Your task to perform on an android device: Open Google Chrome and click the shortcut for Amazon.com Image 0: 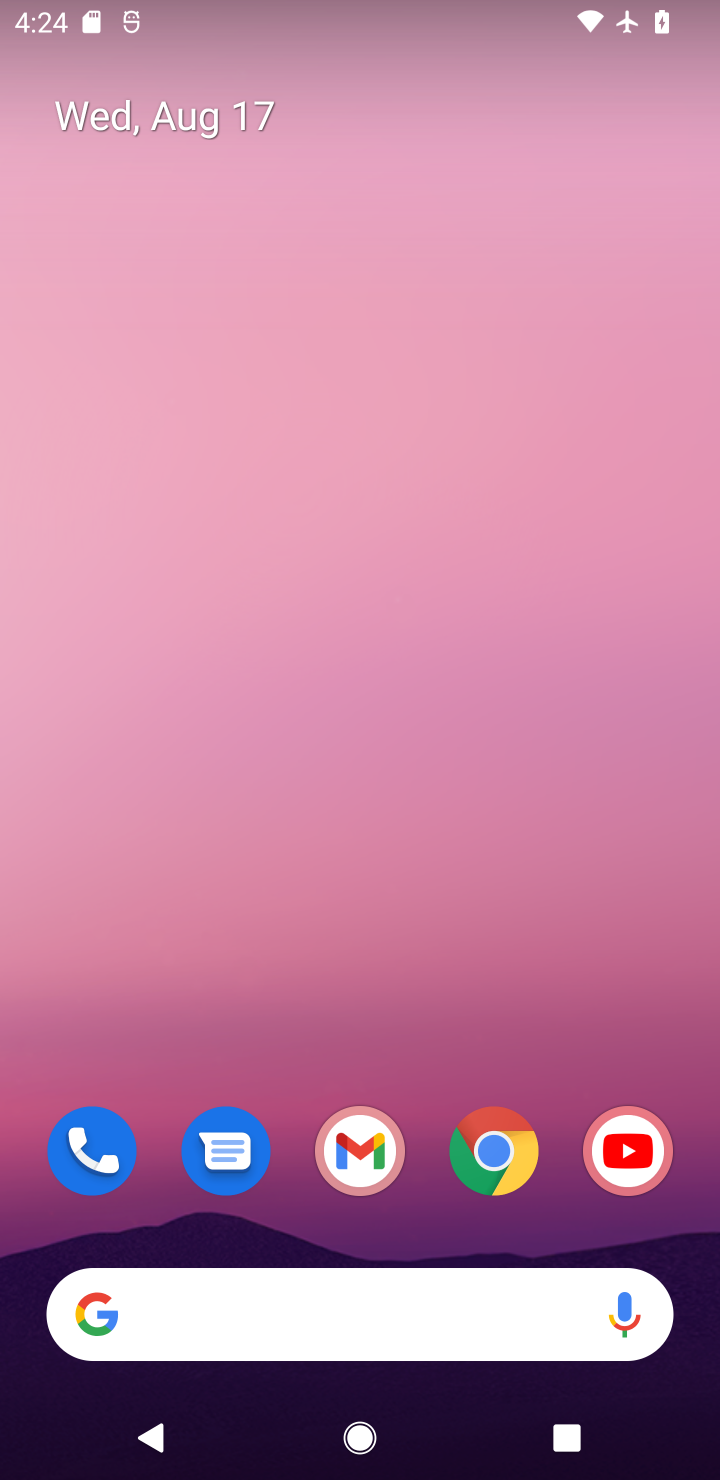
Step 0: drag from (366, 1101) to (271, 507)
Your task to perform on an android device: Open Google Chrome and click the shortcut for Amazon.com Image 1: 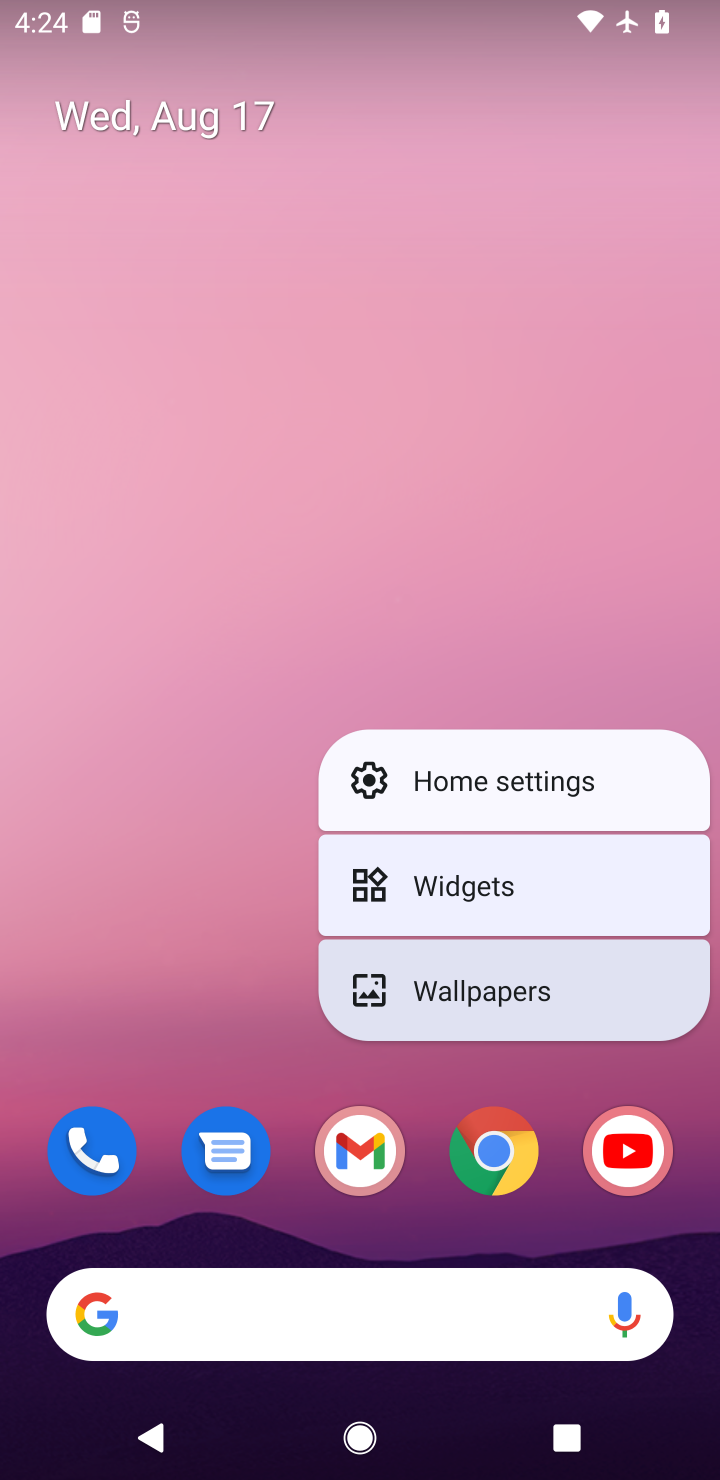
Step 1: click (155, 832)
Your task to perform on an android device: Open Google Chrome and click the shortcut for Amazon.com Image 2: 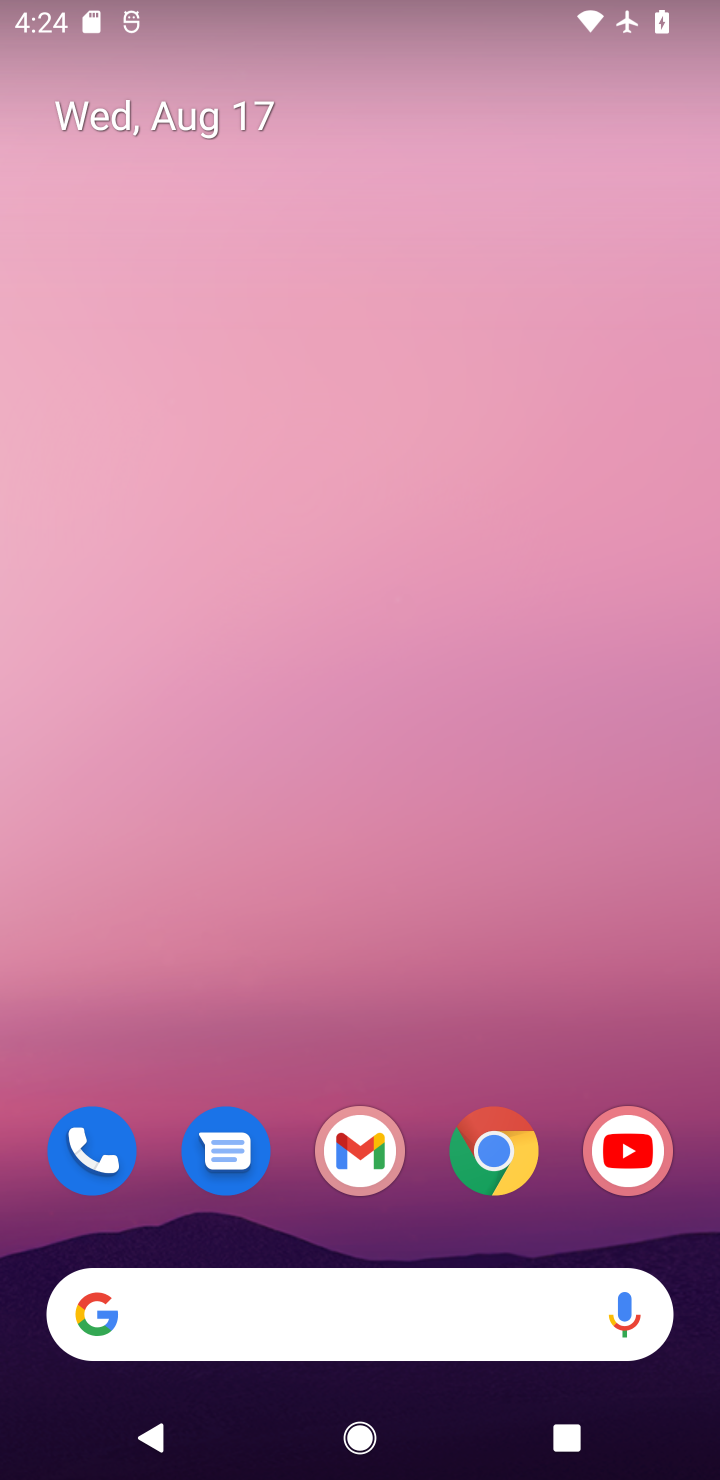
Step 2: drag from (324, 1233) to (312, 493)
Your task to perform on an android device: Open Google Chrome and click the shortcut for Amazon.com Image 3: 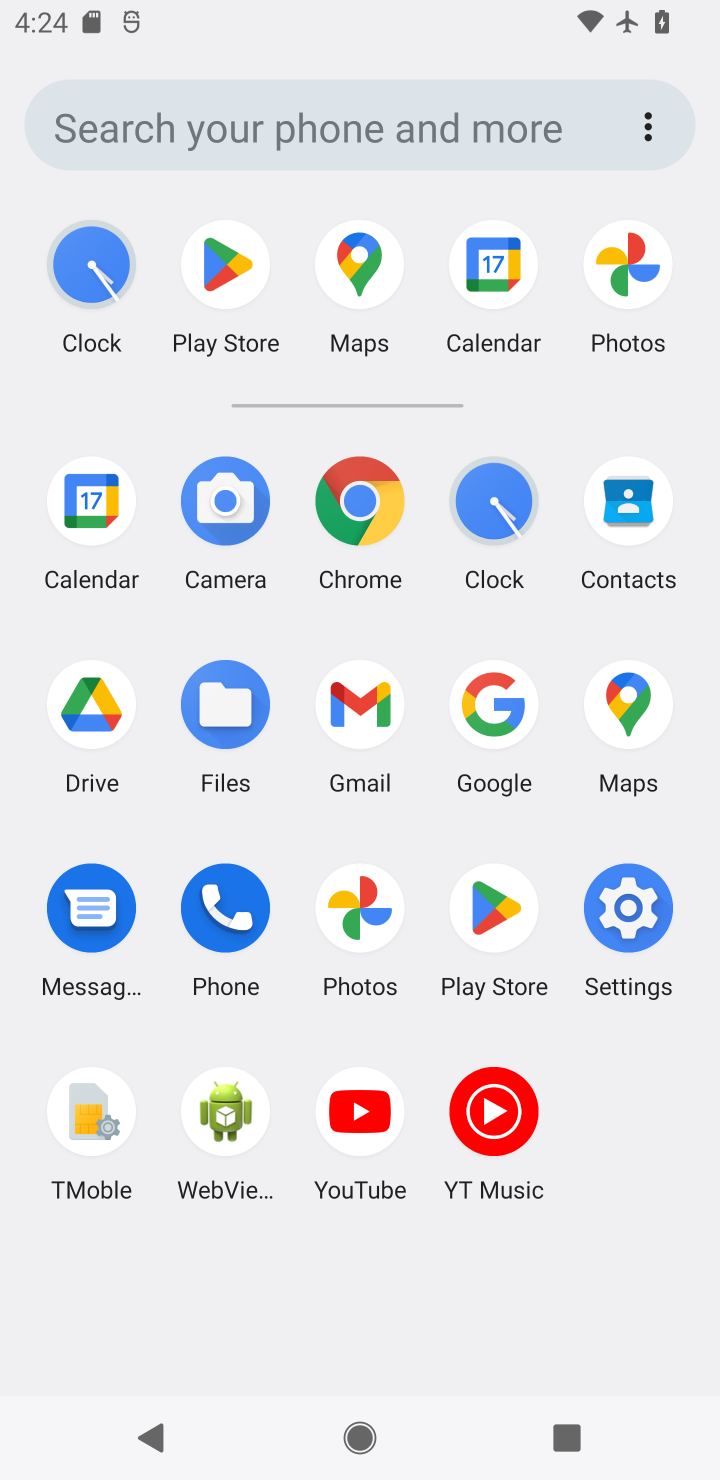
Step 3: click (376, 502)
Your task to perform on an android device: Open Google Chrome and click the shortcut for Amazon.com Image 4: 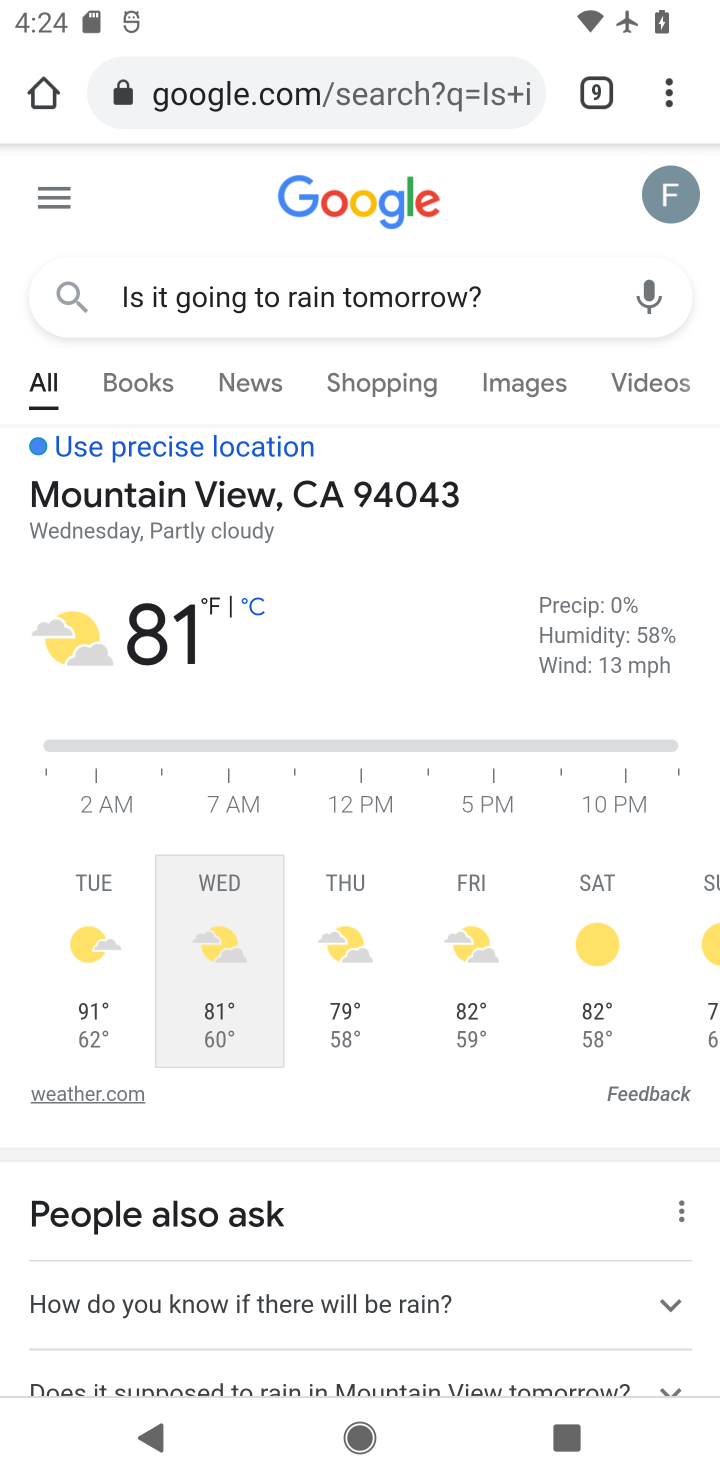
Step 4: click (670, 85)
Your task to perform on an android device: Open Google Chrome and click the shortcut for Amazon.com Image 5: 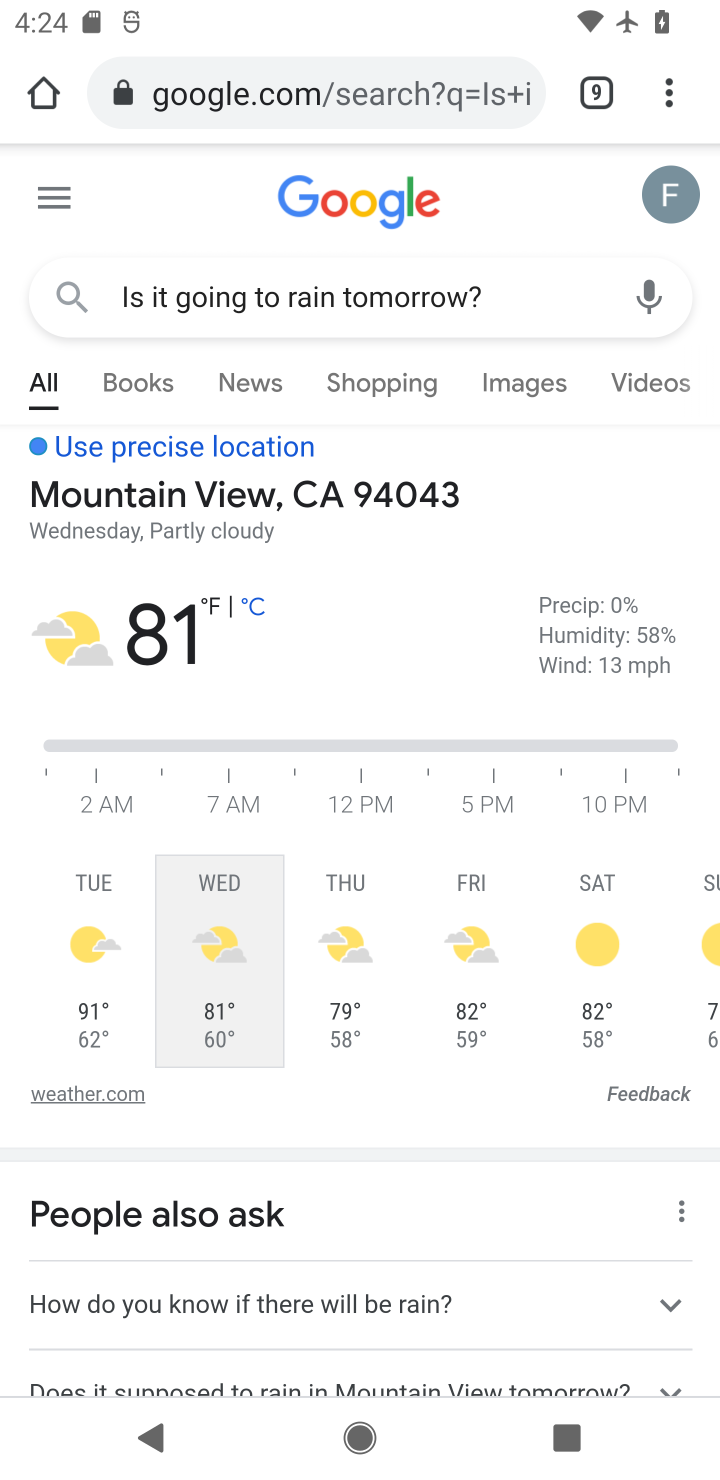
Step 5: click (670, 85)
Your task to perform on an android device: Open Google Chrome and click the shortcut for Amazon.com Image 6: 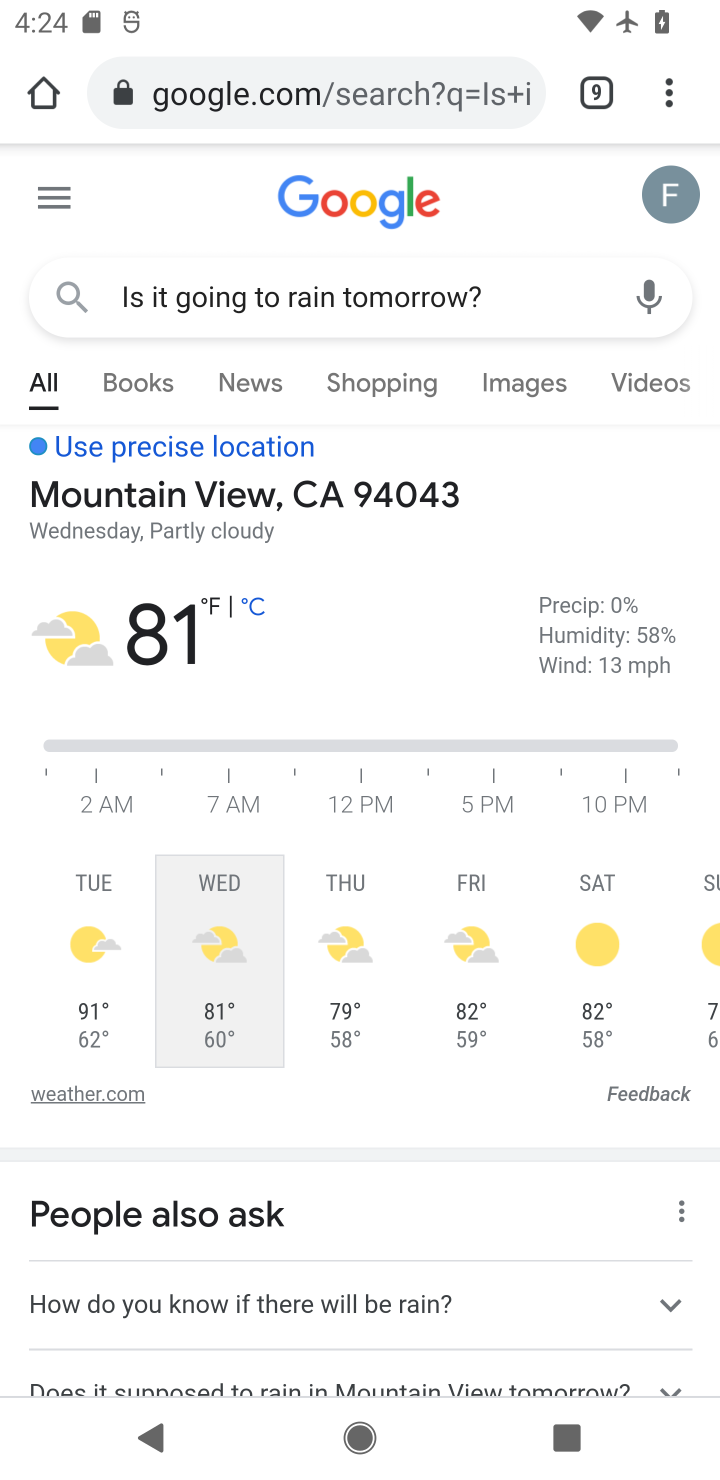
Step 6: click (670, 85)
Your task to perform on an android device: Open Google Chrome and click the shortcut for Amazon.com Image 7: 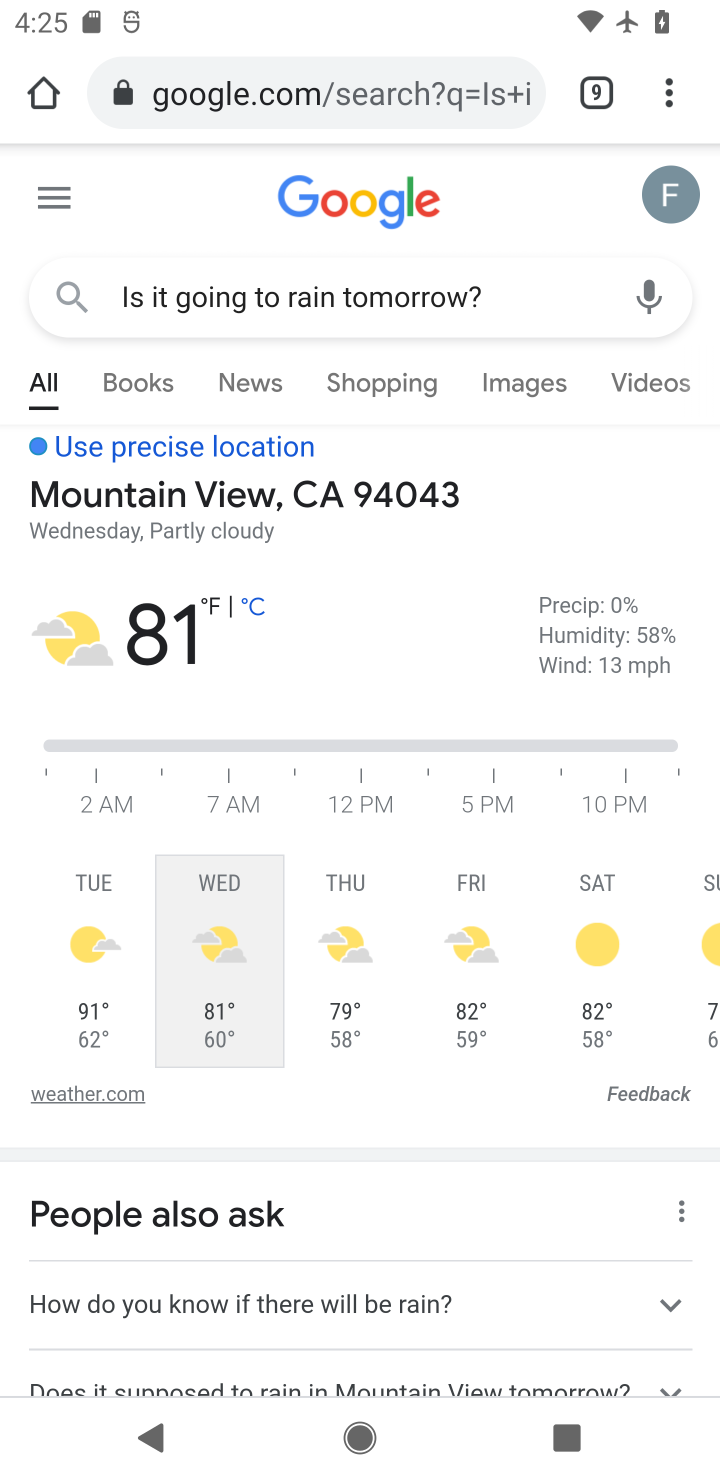
Step 7: click (653, 58)
Your task to perform on an android device: Open Google Chrome and click the shortcut for Amazon.com Image 8: 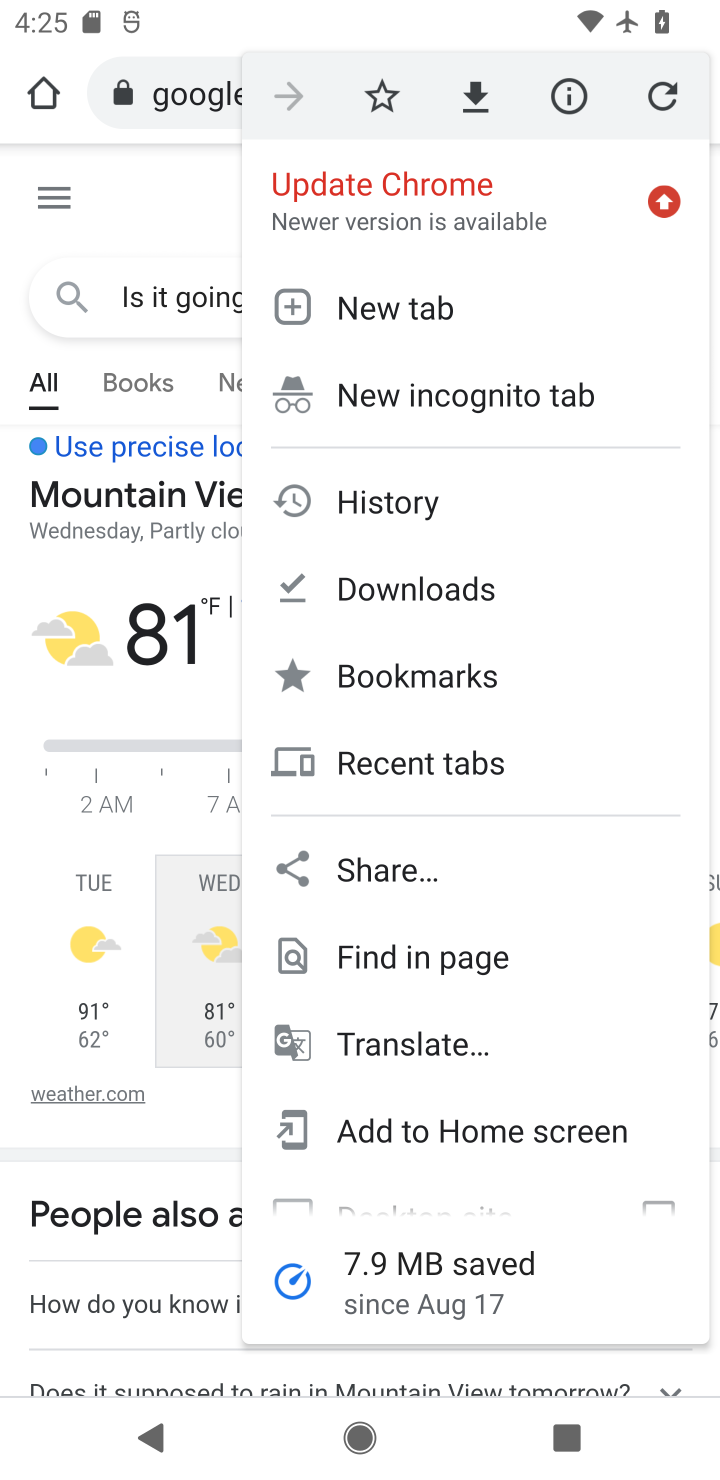
Step 8: click (396, 306)
Your task to perform on an android device: Open Google Chrome and click the shortcut for Amazon.com Image 9: 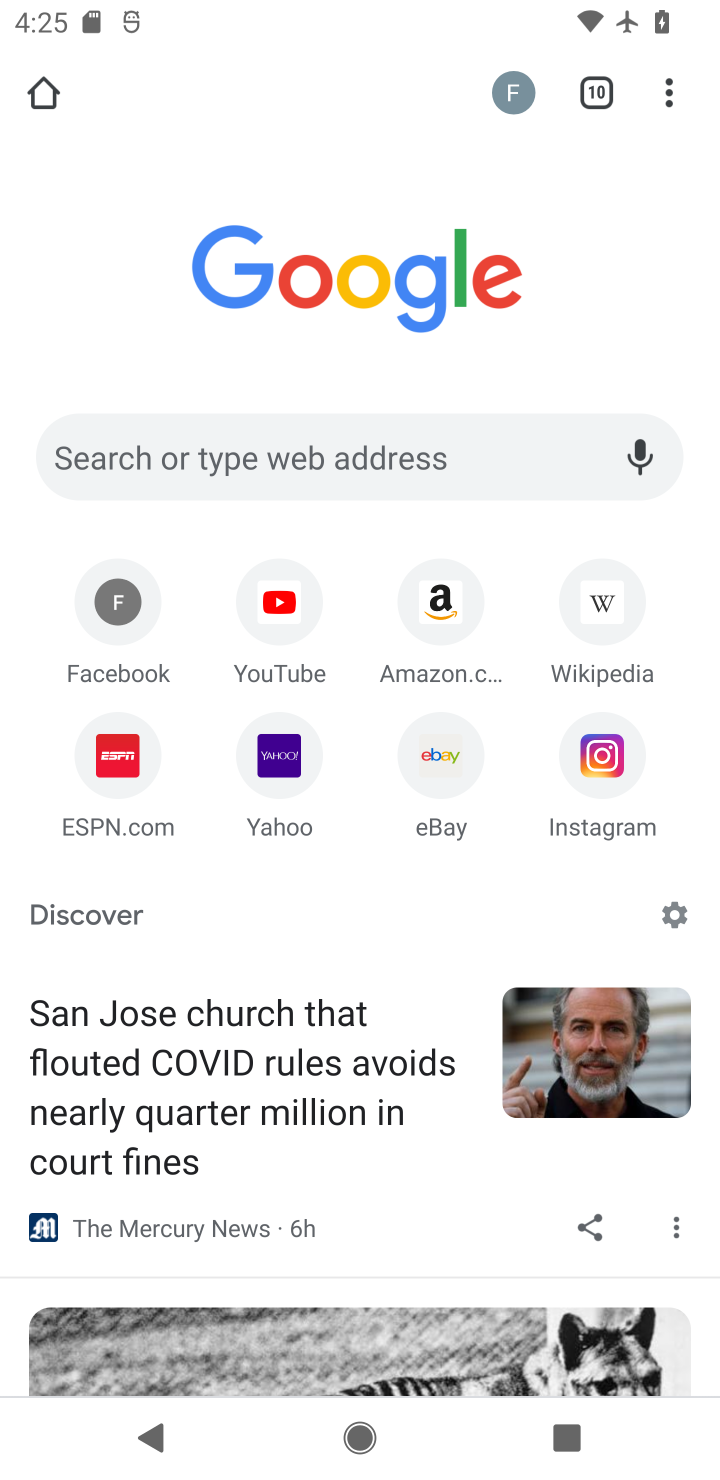
Step 9: click (421, 624)
Your task to perform on an android device: Open Google Chrome and click the shortcut for Amazon.com Image 10: 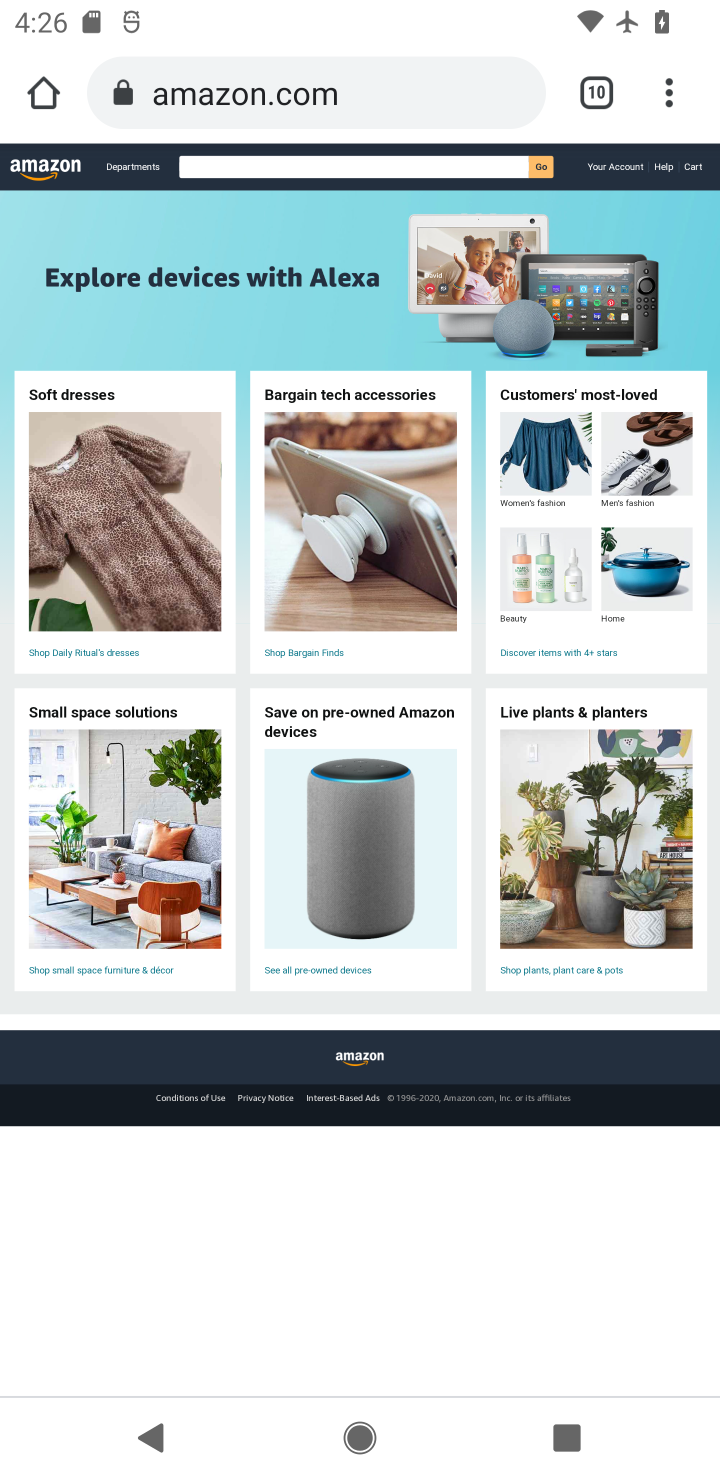
Step 10: task complete